Your task to perform on an android device: turn on bluetooth scan Image 0: 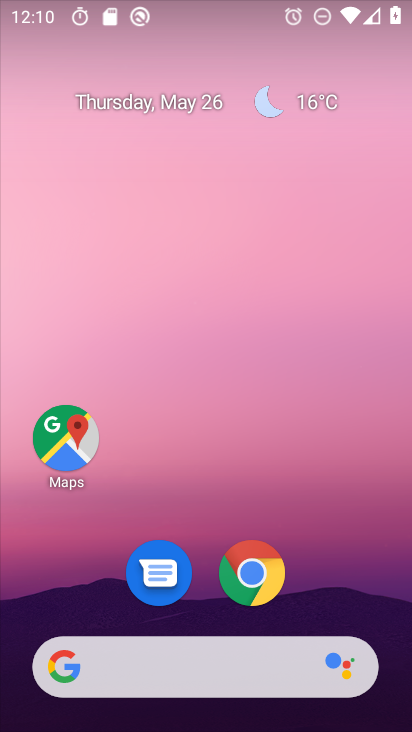
Step 0: drag from (367, 629) to (407, 10)
Your task to perform on an android device: turn on bluetooth scan Image 1: 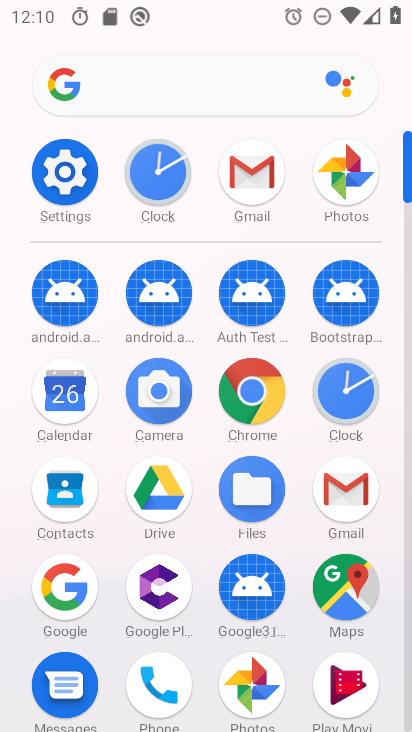
Step 1: click (69, 172)
Your task to perform on an android device: turn on bluetooth scan Image 2: 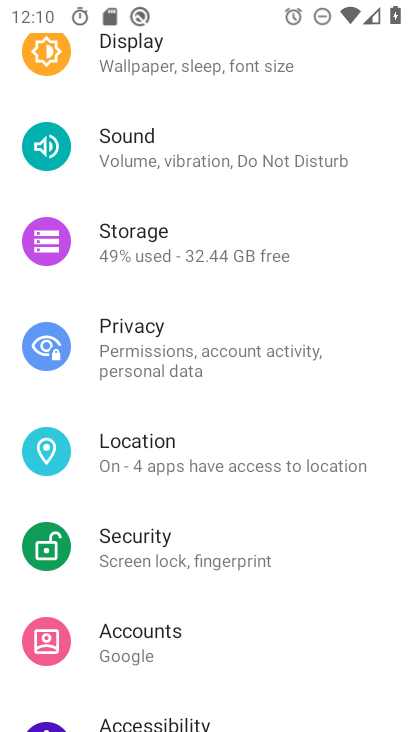
Step 2: click (161, 467)
Your task to perform on an android device: turn on bluetooth scan Image 3: 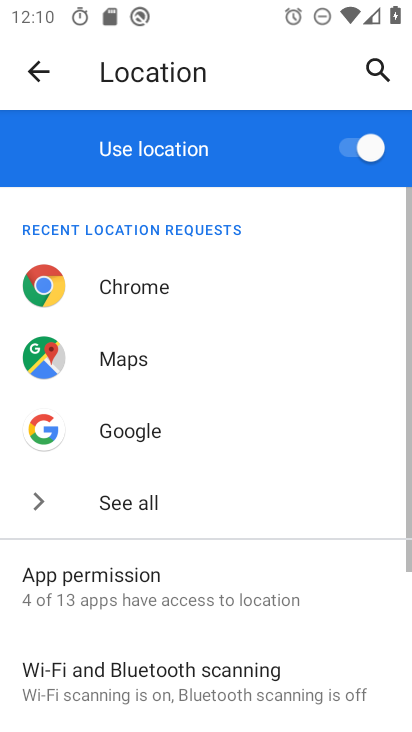
Step 3: drag from (215, 494) to (257, 221)
Your task to perform on an android device: turn on bluetooth scan Image 4: 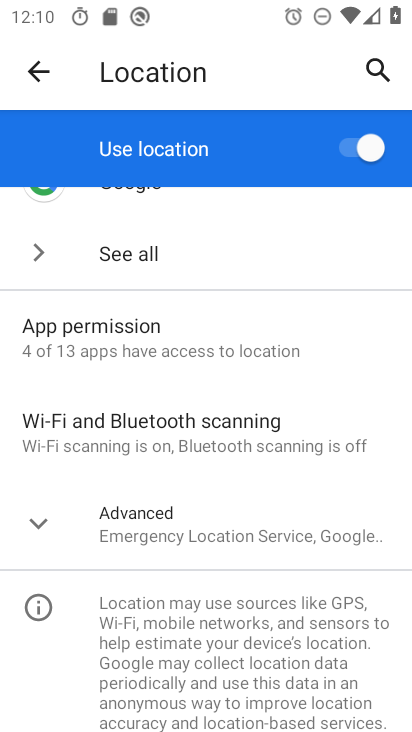
Step 4: click (132, 423)
Your task to perform on an android device: turn on bluetooth scan Image 5: 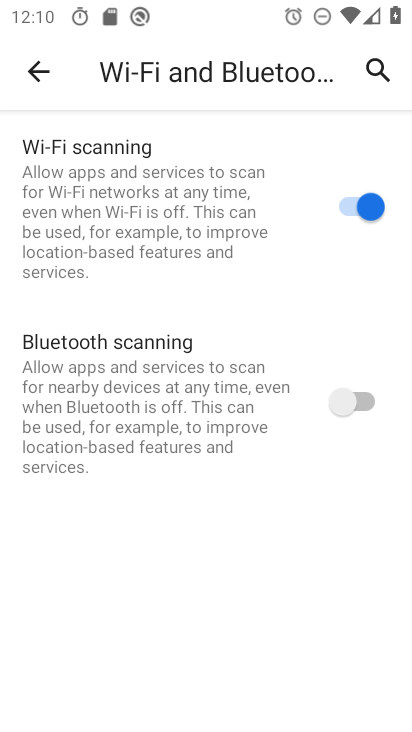
Step 5: click (346, 413)
Your task to perform on an android device: turn on bluetooth scan Image 6: 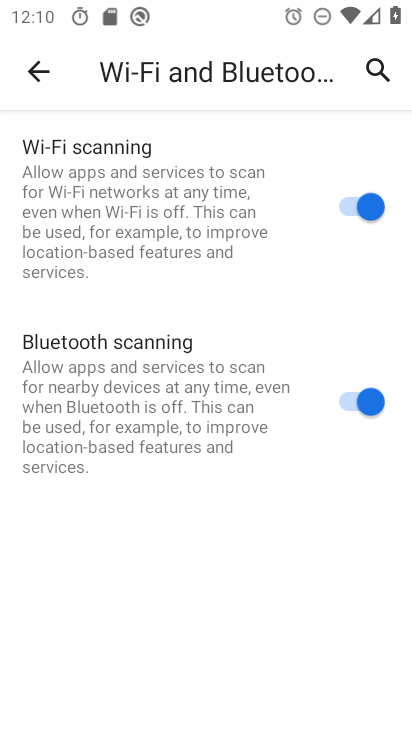
Step 6: task complete